Your task to perform on an android device: turn pop-ups on in chrome Image 0: 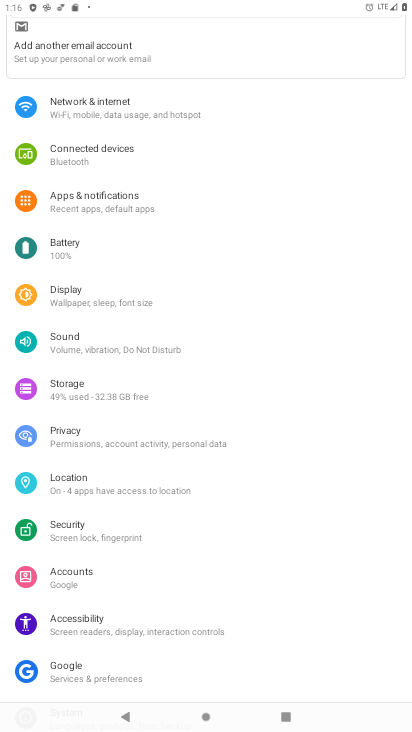
Step 0: press home button
Your task to perform on an android device: turn pop-ups on in chrome Image 1: 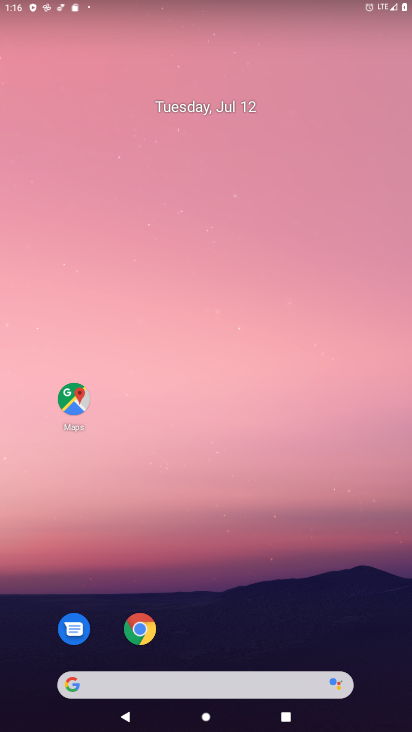
Step 1: drag from (301, 661) to (307, 117)
Your task to perform on an android device: turn pop-ups on in chrome Image 2: 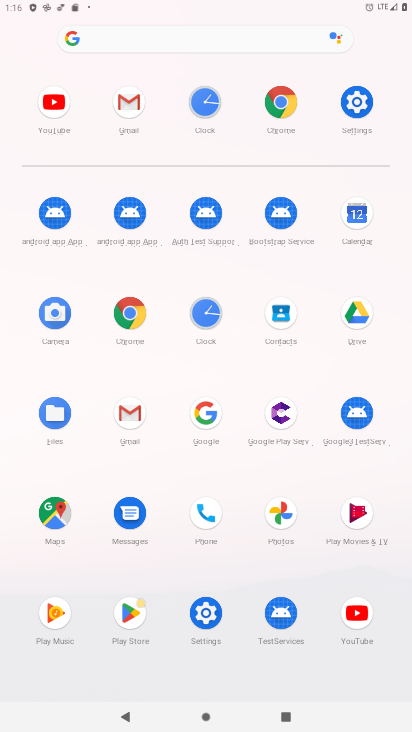
Step 2: click (140, 315)
Your task to perform on an android device: turn pop-ups on in chrome Image 3: 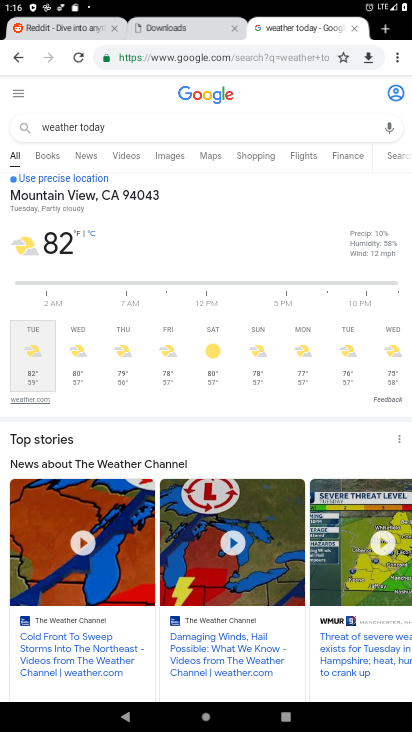
Step 3: click (400, 52)
Your task to perform on an android device: turn pop-ups on in chrome Image 4: 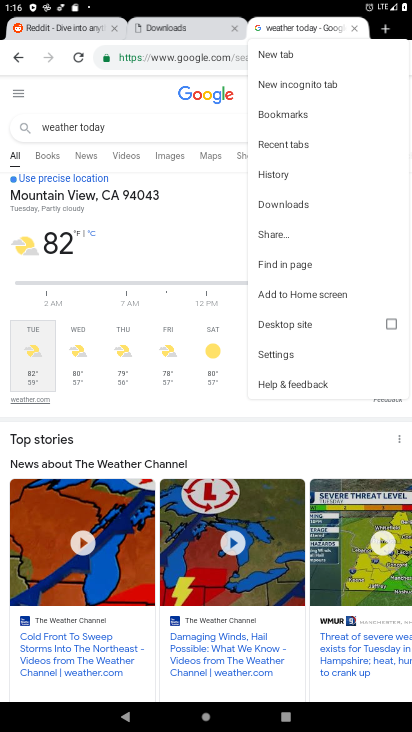
Step 4: click (306, 351)
Your task to perform on an android device: turn pop-ups on in chrome Image 5: 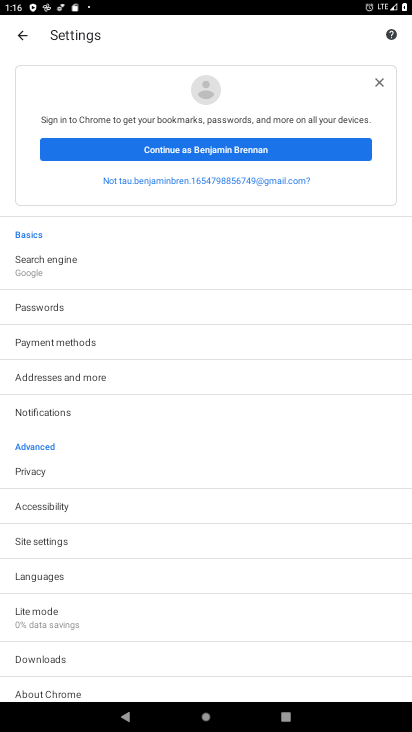
Step 5: click (89, 531)
Your task to perform on an android device: turn pop-ups on in chrome Image 6: 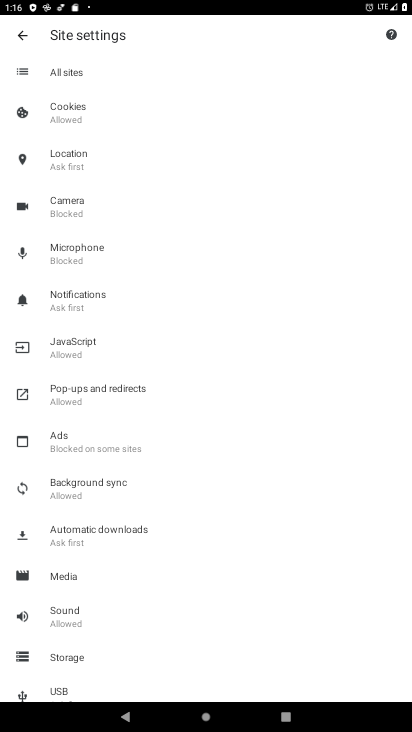
Step 6: click (129, 397)
Your task to perform on an android device: turn pop-ups on in chrome Image 7: 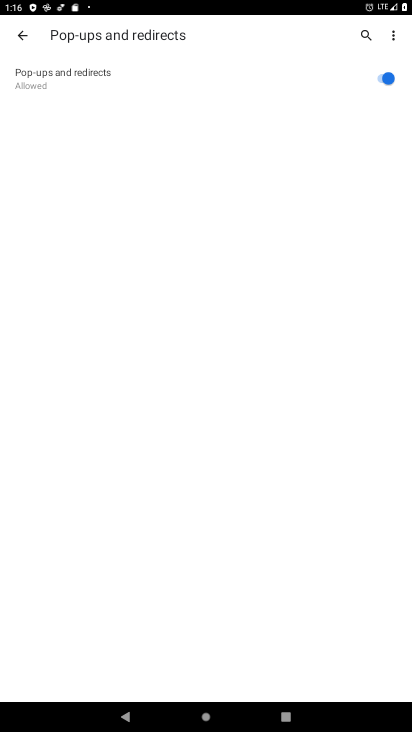
Step 7: task complete